Your task to perform on an android device: turn notification dots off Image 0: 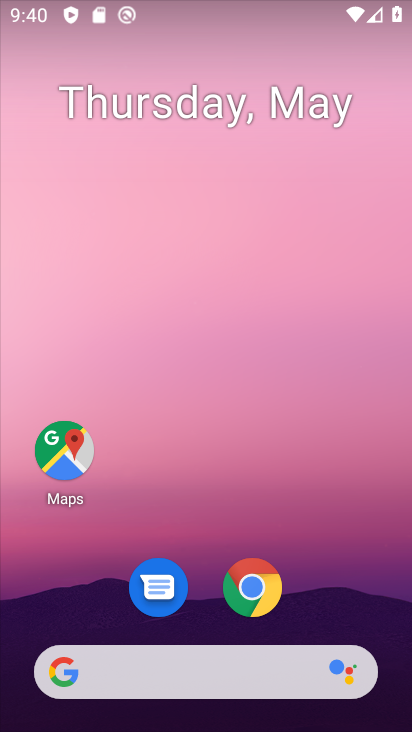
Step 0: drag from (378, 655) to (215, 9)
Your task to perform on an android device: turn notification dots off Image 1: 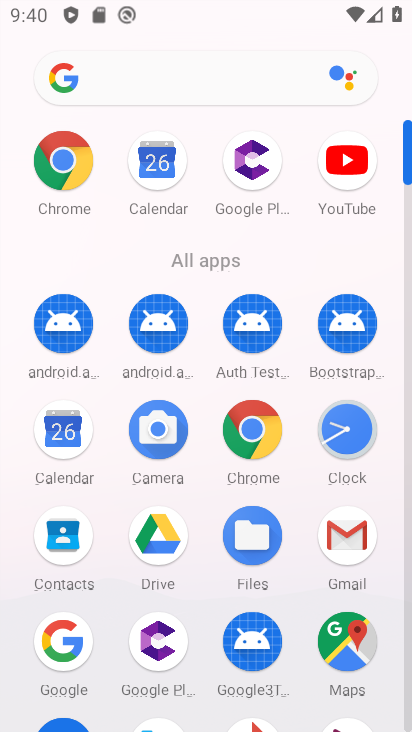
Step 1: drag from (205, 671) to (250, 119)
Your task to perform on an android device: turn notification dots off Image 2: 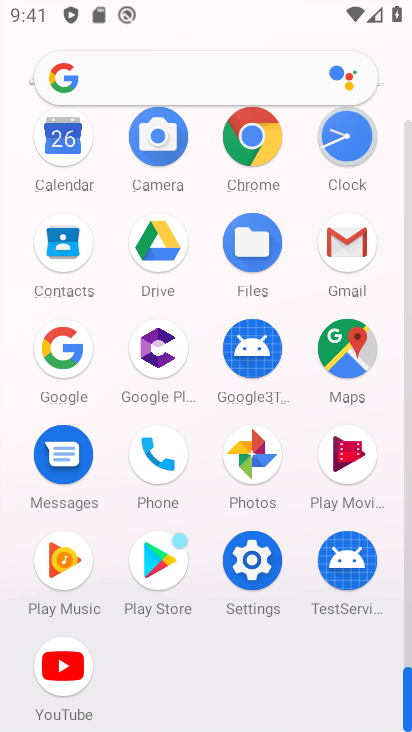
Step 2: click (247, 572)
Your task to perform on an android device: turn notification dots off Image 3: 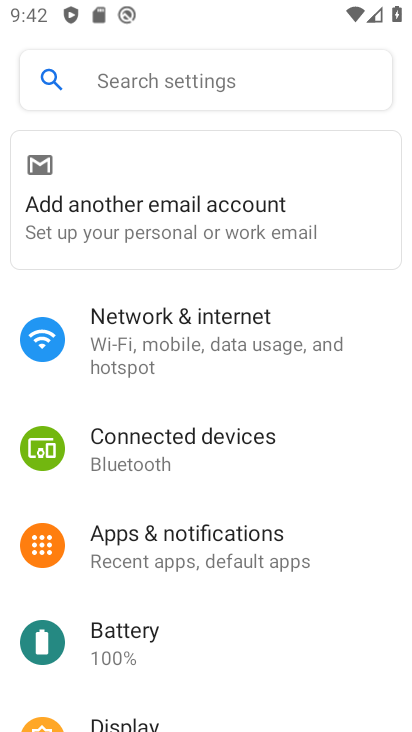
Step 3: click (181, 556)
Your task to perform on an android device: turn notification dots off Image 4: 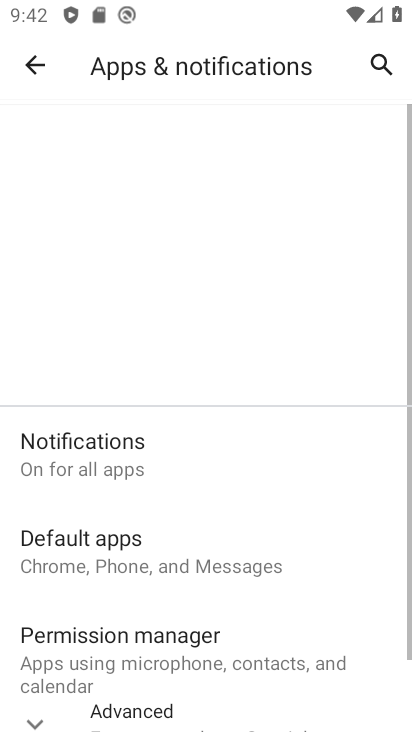
Step 4: click (133, 461)
Your task to perform on an android device: turn notification dots off Image 5: 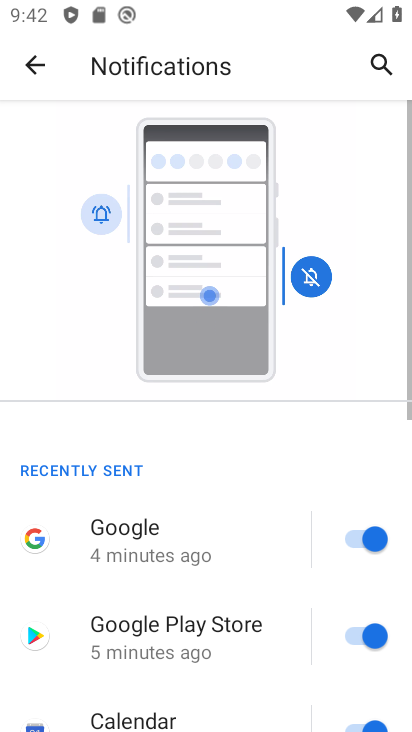
Step 5: drag from (275, 650) to (243, 122)
Your task to perform on an android device: turn notification dots off Image 6: 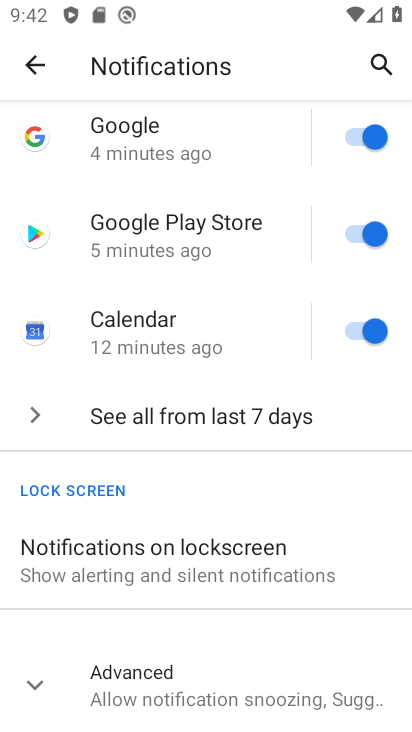
Step 6: click (195, 675)
Your task to perform on an android device: turn notification dots off Image 7: 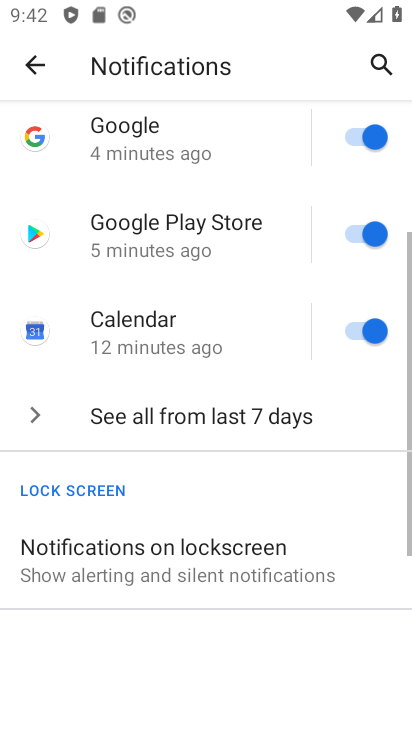
Step 7: drag from (202, 687) to (251, 202)
Your task to perform on an android device: turn notification dots off Image 8: 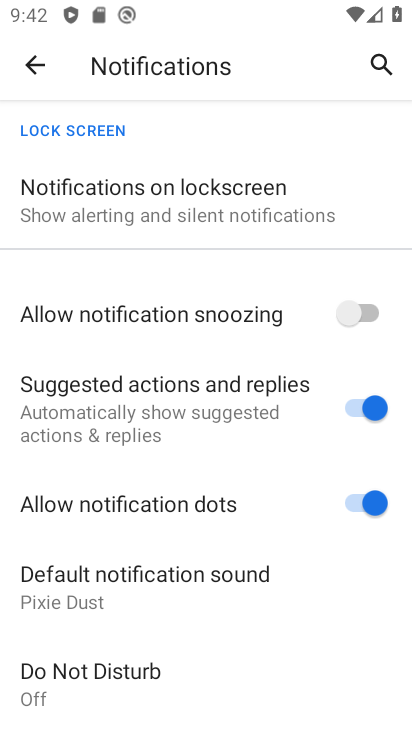
Step 8: click (227, 517)
Your task to perform on an android device: turn notification dots off Image 9: 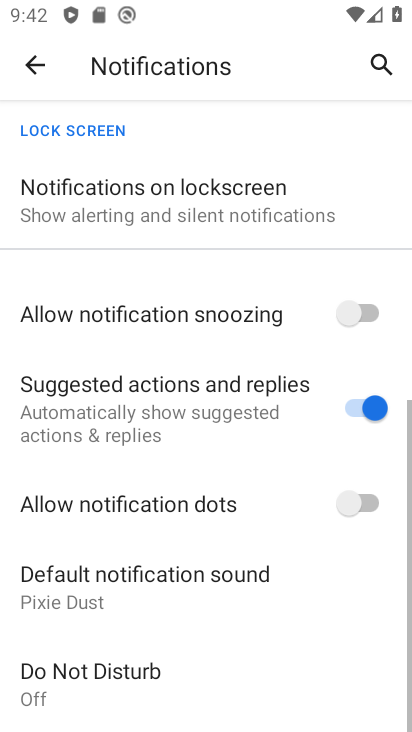
Step 9: task complete